Your task to perform on an android device: refresh tabs in the chrome app Image 0: 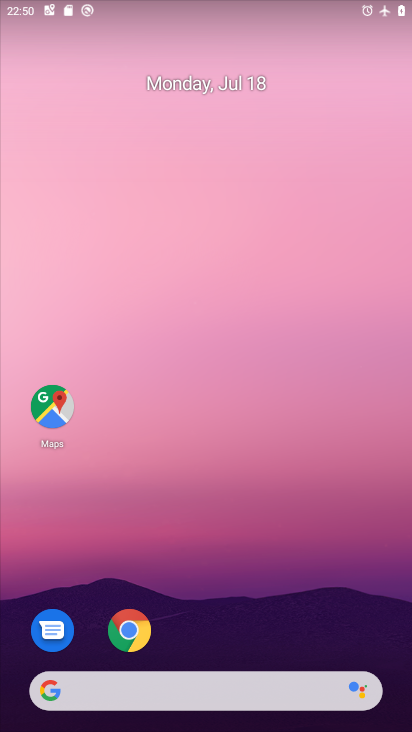
Step 0: click (117, 639)
Your task to perform on an android device: refresh tabs in the chrome app Image 1: 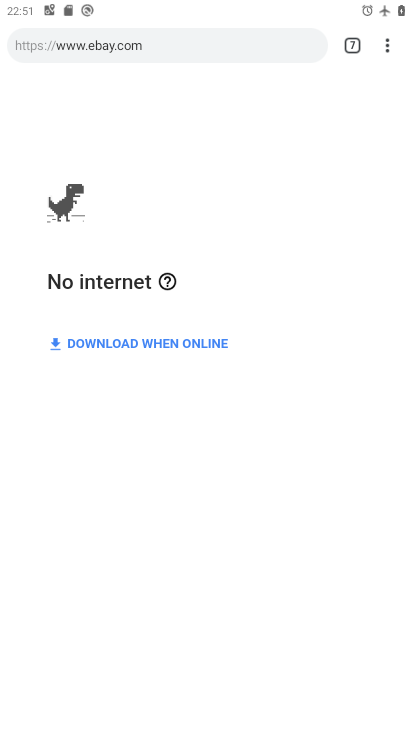
Step 1: click (384, 56)
Your task to perform on an android device: refresh tabs in the chrome app Image 2: 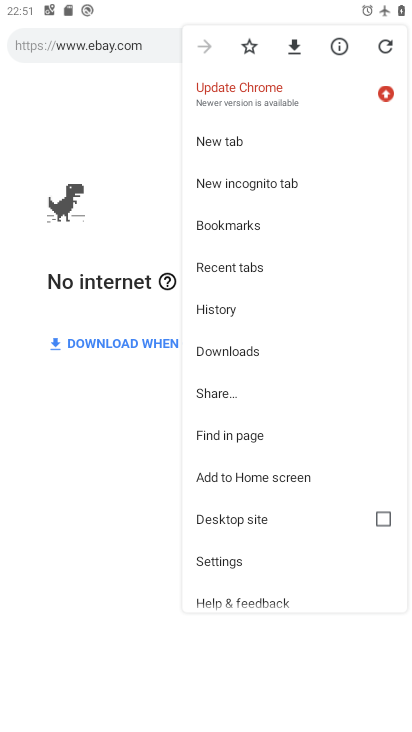
Step 2: click (387, 56)
Your task to perform on an android device: refresh tabs in the chrome app Image 3: 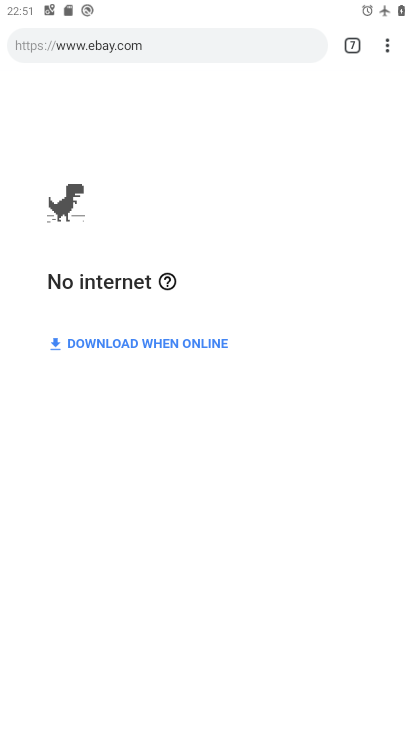
Step 3: task complete